Your task to perform on an android device: Clear the shopping cart on costco.com. Image 0: 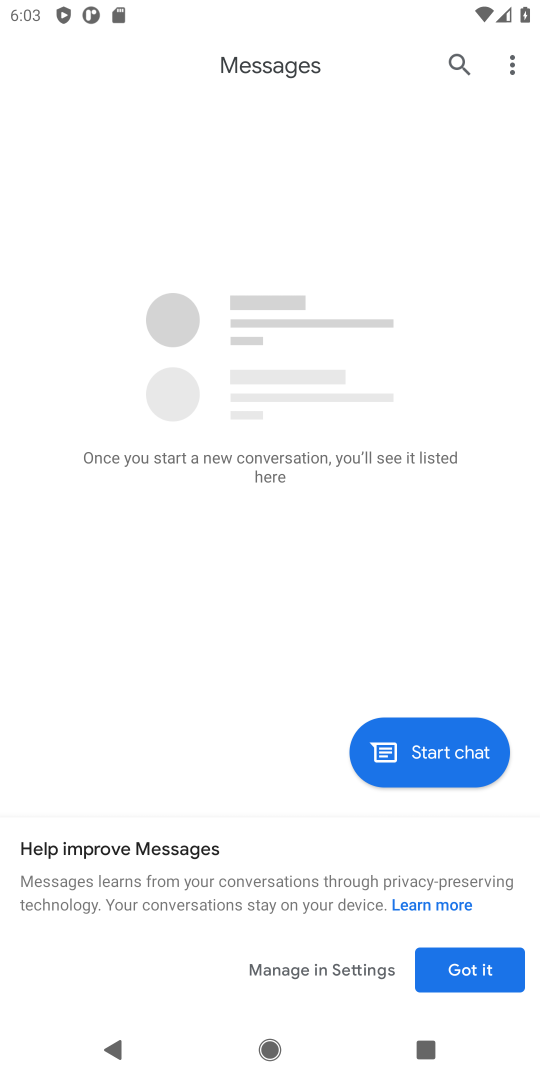
Step 0: press home button
Your task to perform on an android device: Clear the shopping cart on costco.com. Image 1: 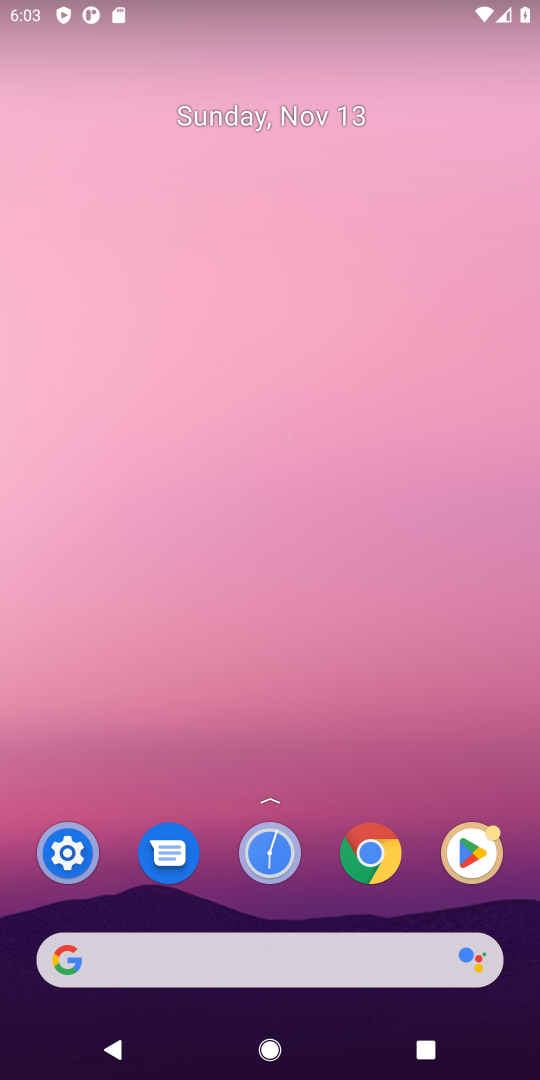
Step 1: click (118, 956)
Your task to perform on an android device: Clear the shopping cart on costco.com. Image 2: 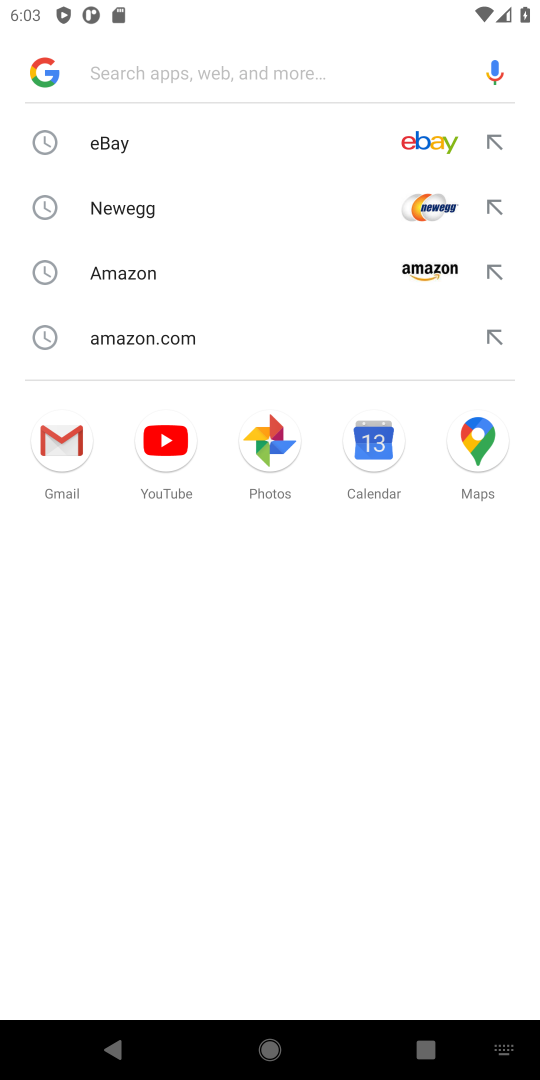
Step 2: type " costco.com"
Your task to perform on an android device: Clear the shopping cart on costco.com. Image 3: 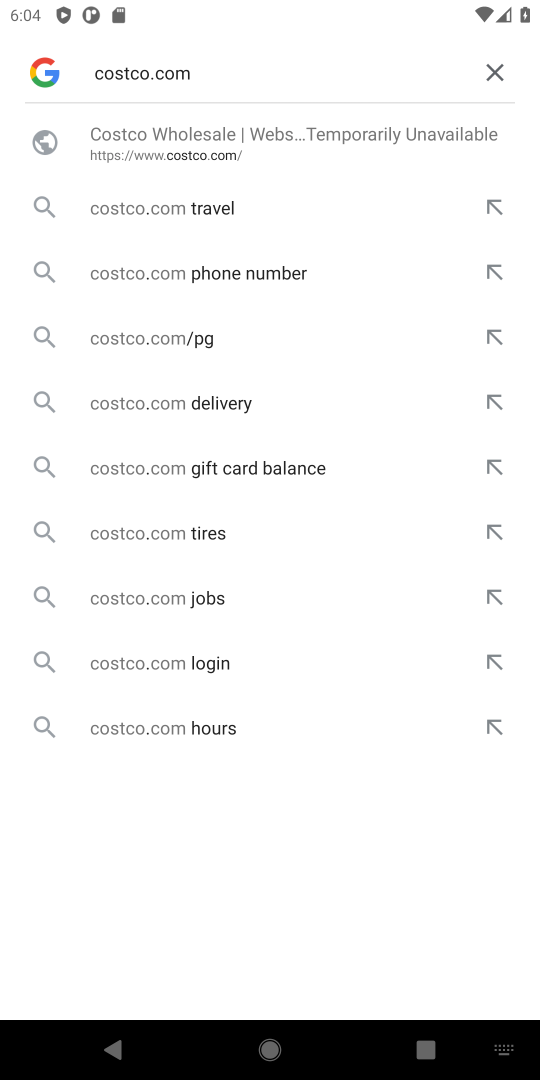
Step 3: press enter
Your task to perform on an android device: Clear the shopping cart on costco.com. Image 4: 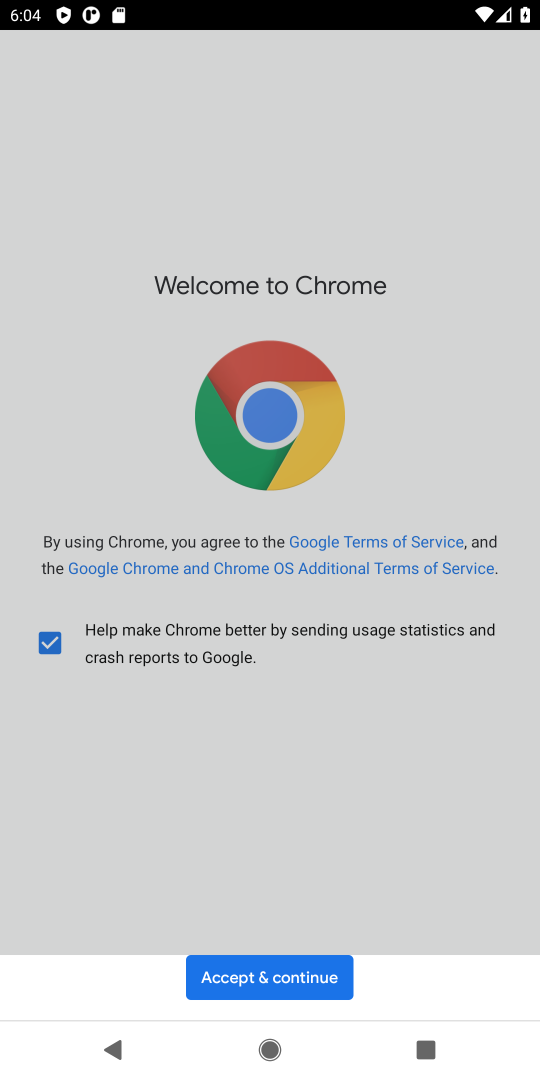
Step 4: click (274, 981)
Your task to perform on an android device: Clear the shopping cart on costco.com. Image 5: 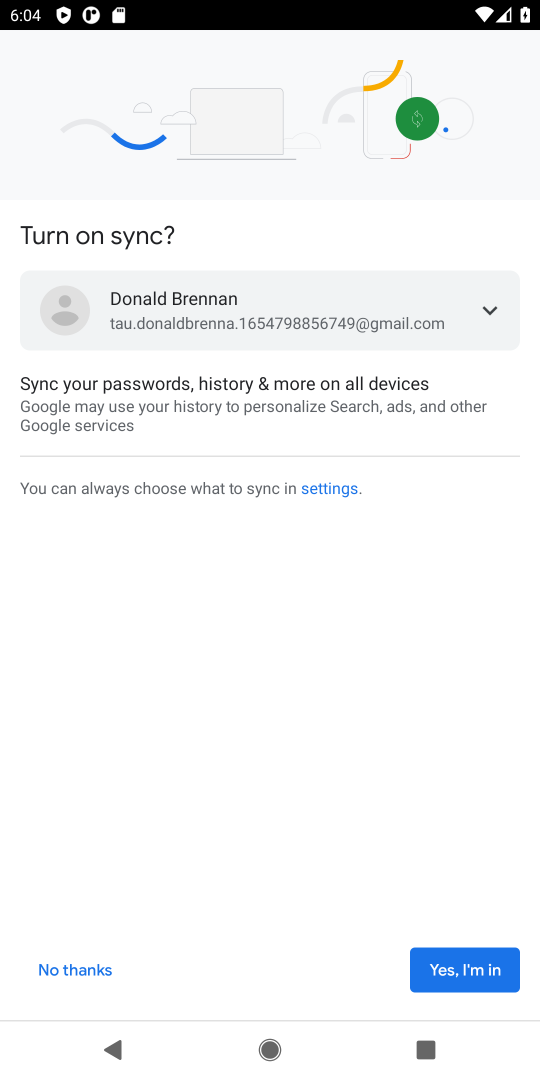
Step 5: click (461, 974)
Your task to perform on an android device: Clear the shopping cart on costco.com. Image 6: 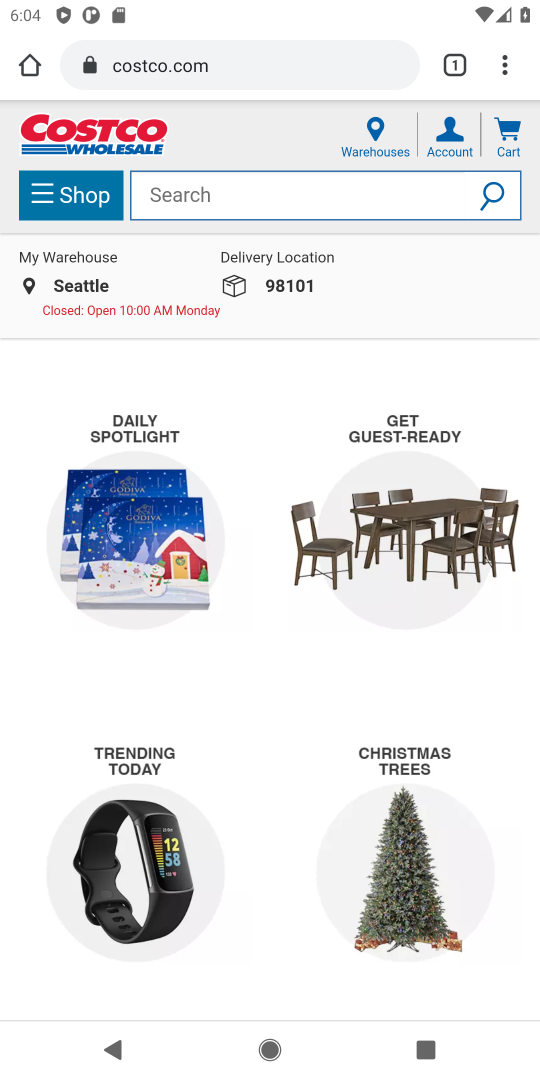
Step 6: click (508, 136)
Your task to perform on an android device: Clear the shopping cart on costco.com. Image 7: 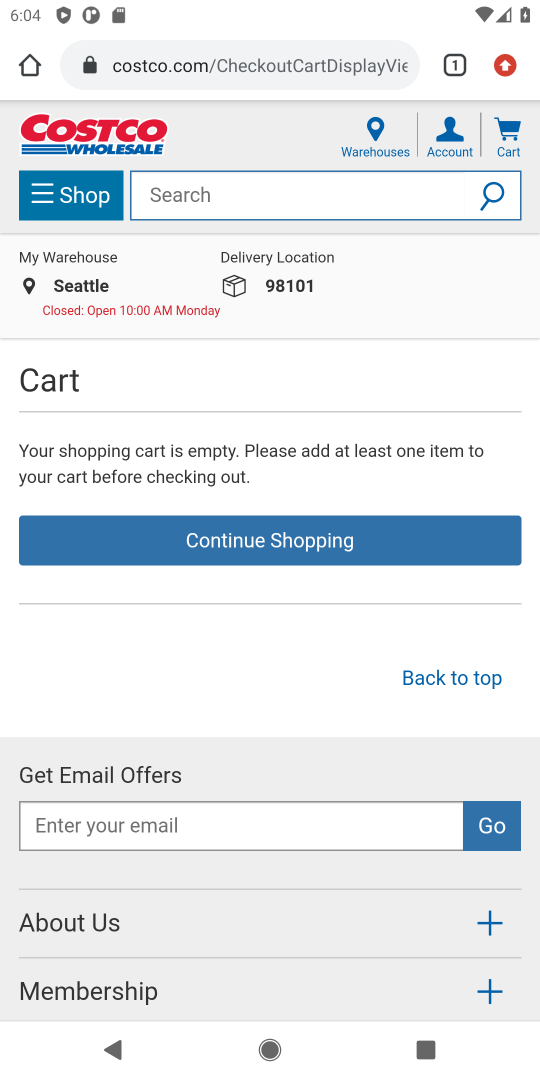
Step 7: task complete